Your task to perform on an android device: turn off notifications settings in the gmail app Image 0: 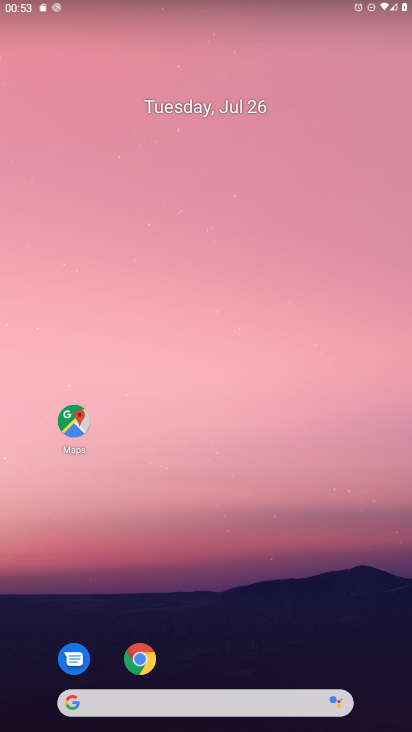
Step 0: drag from (296, 625) to (274, 77)
Your task to perform on an android device: turn off notifications settings in the gmail app Image 1: 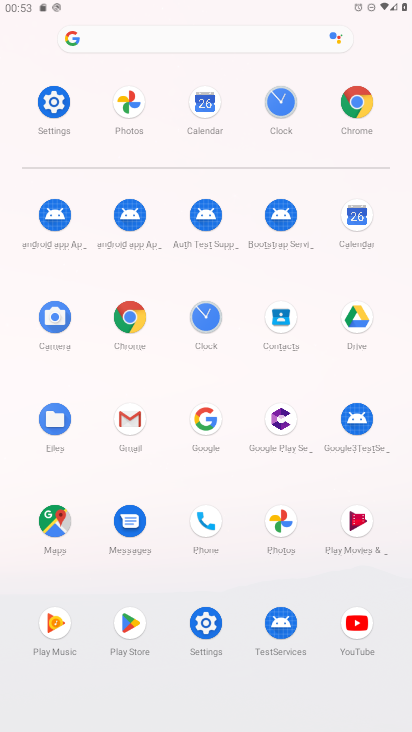
Step 1: click (129, 430)
Your task to perform on an android device: turn off notifications settings in the gmail app Image 2: 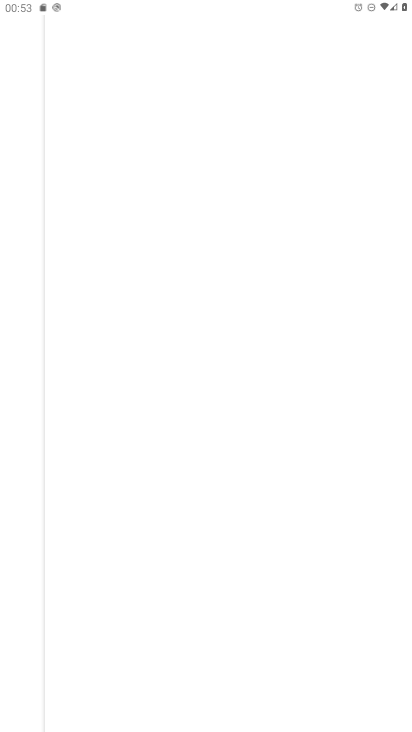
Step 2: drag from (129, 430) to (174, 444)
Your task to perform on an android device: turn off notifications settings in the gmail app Image 3: 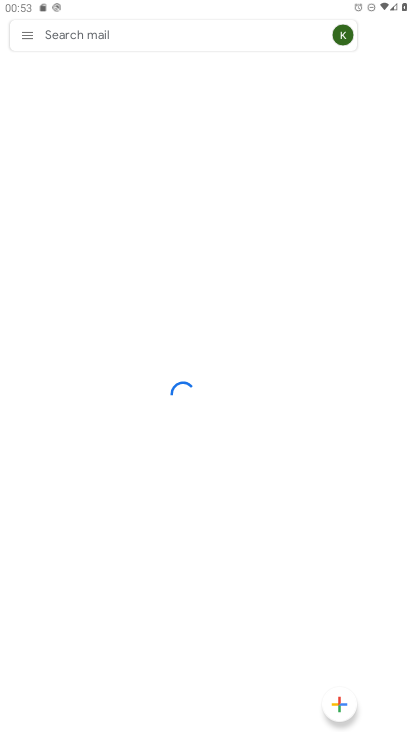
Step 3: press home button
Your task to perform on an android device: turn off notifications settings in the gmail app Image 4: 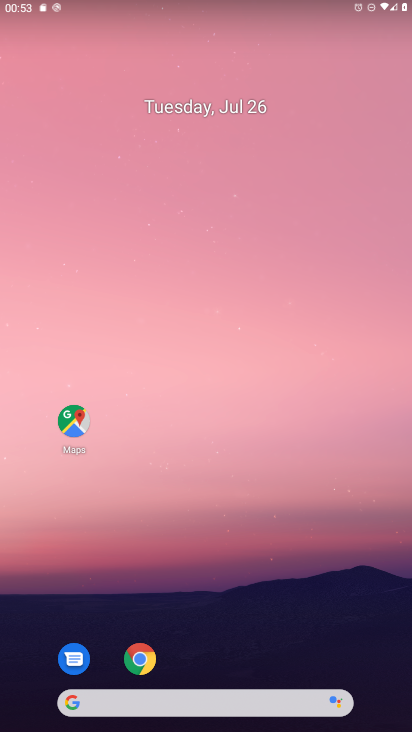
Step 4: drag from (215, 630) to (216, 169)
Your task to perform on an android device: turn off notifications settings in the gmail app Image 5: 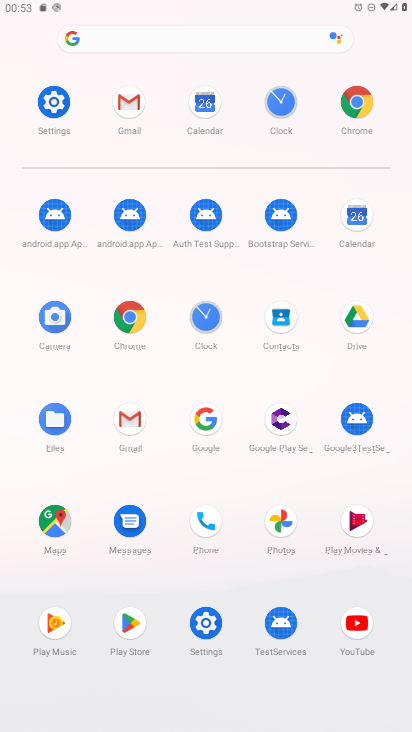
Step 5: click (128, 416)
Your task to perform on an android device: turn off notifications settings in the gmail app Image 6: 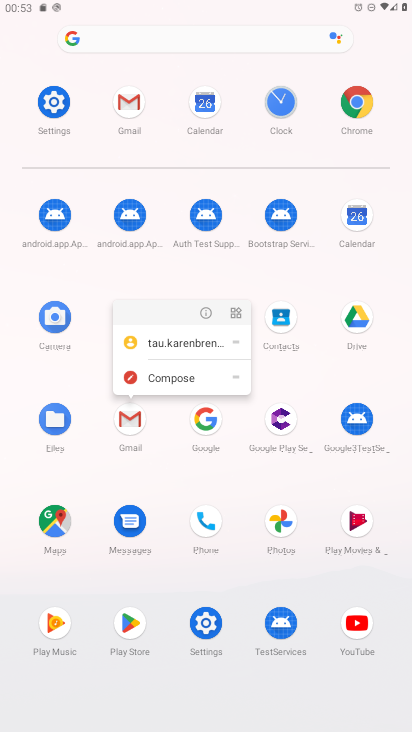
Step 6: click (207, 314)
Your task to perform on an android device: turn off notifications settings in the gmail app Image 7: 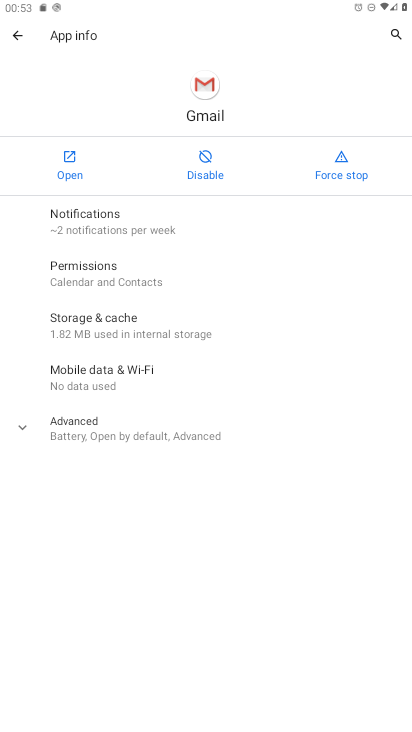
Step 7: click (197, 230)
Your task to perform on an android device: turn off notifications settings in the gmail app Image 8: 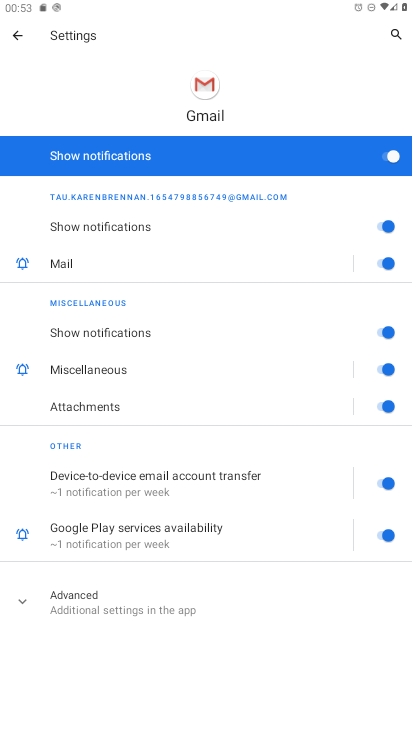
Step 8: click (194, 155)
Your task to perform on an android device: turn off notifications settings in the gmail app Image 9: 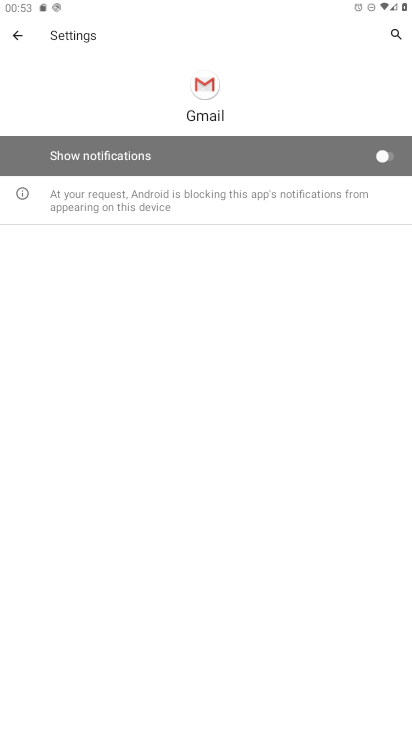
Step 9: task complete